Your task to perform on an android device: check battery use Image 0: 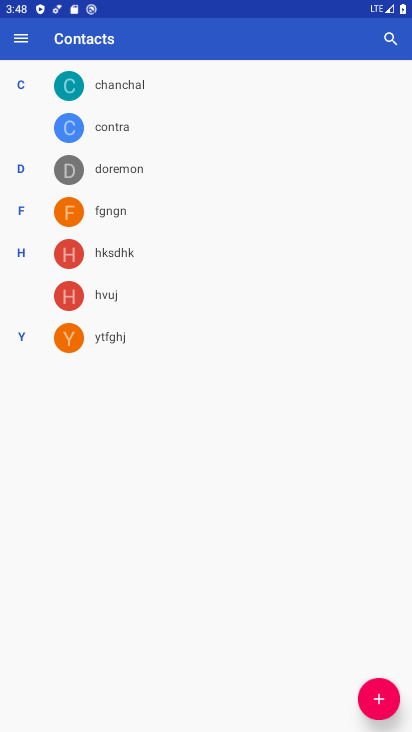
Step 0: press home button
Your task to perform on an android device: check battery use Image 1: 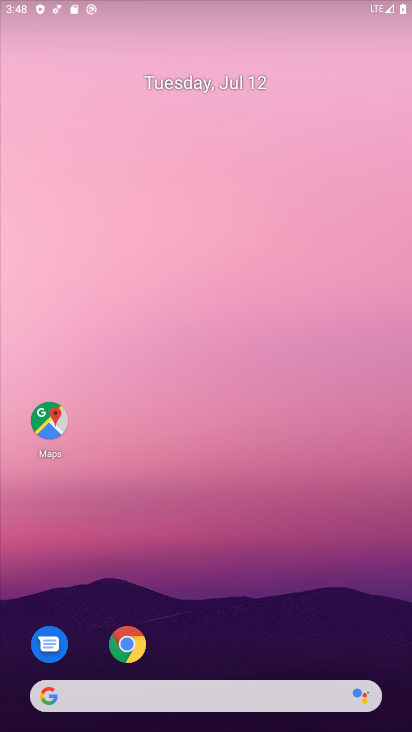
Step 1: drag from (319, 447) to (326, 2)
Your task to perform on an android device: check battery use Image 2: 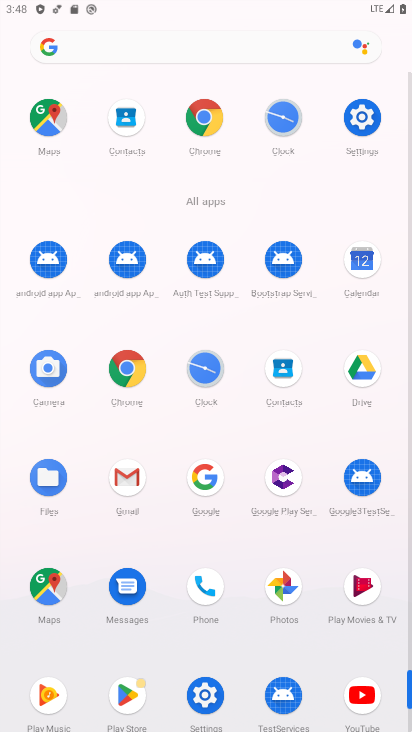
Step 2: click (368, 124)
Your task to perform on an android device: check battery use Image 3: 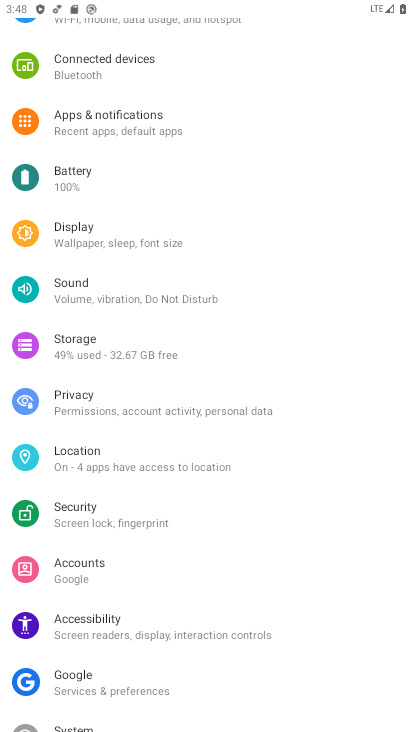
Step 3: click (112, 166)
Your task to perform on an android device: check battery use Image 4: 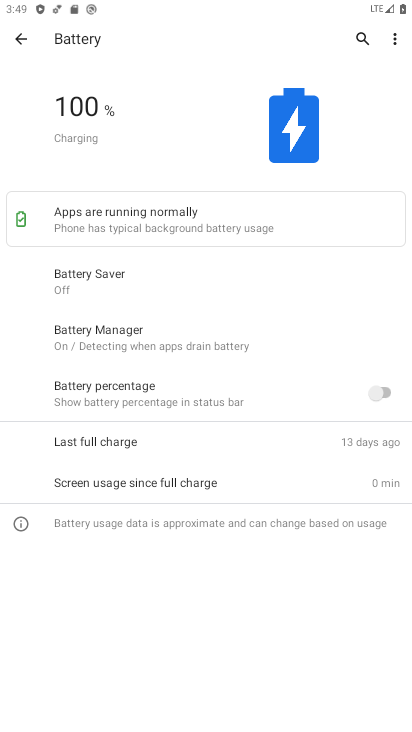
Step 4: click (400, 35)
Your task to perform on an android device: check battery use Image 5: 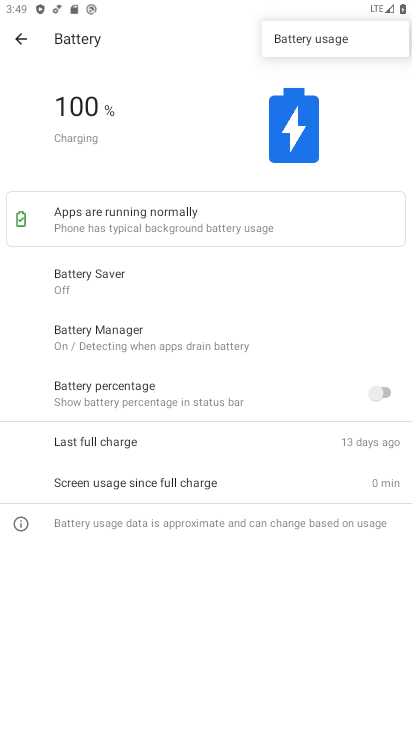
Step 5: click (336, 43)
Your task to perform on an android device: check battery use Image 6: 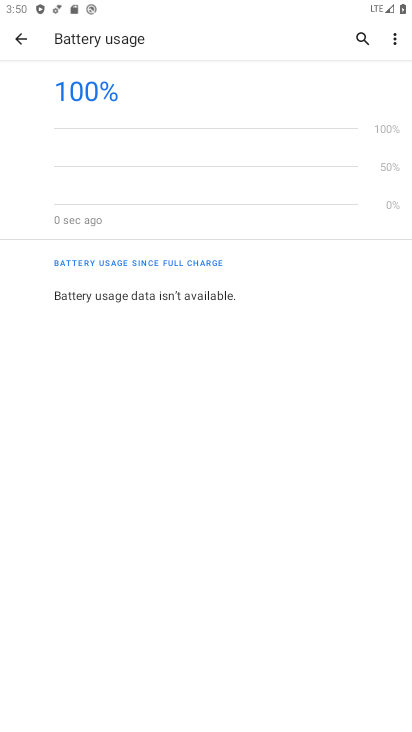
Step 6: task complete